Your task to perform on an android device: toggle pop-ups in chrome Image 0: 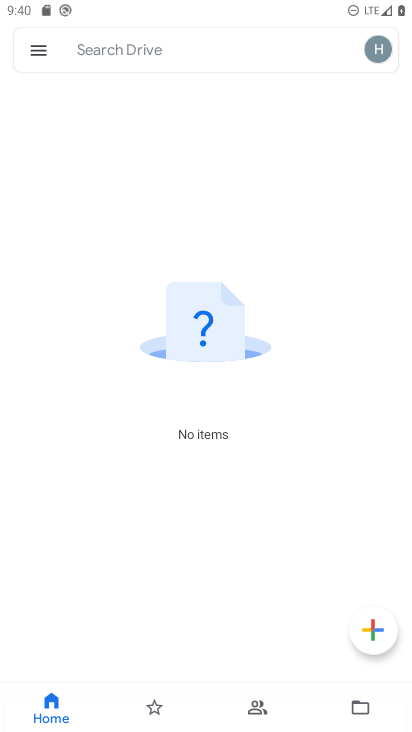
Step 0: press home button
Your task to perform on an android device: toggle pop-ups in chrome Image 1: 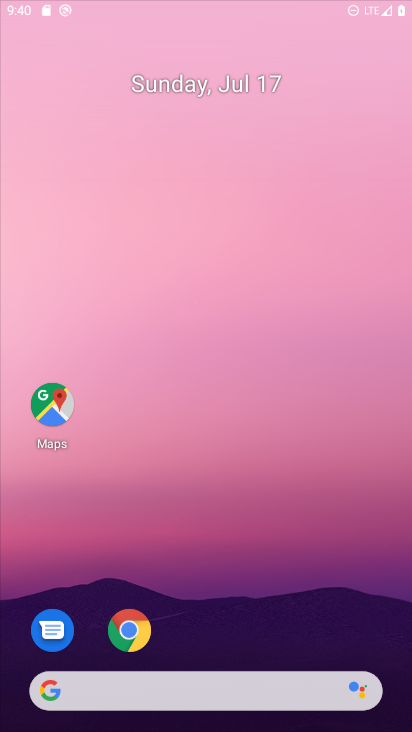
Step 1: drag from (366, 663) to (220, 61)
Your task to perform on an android device: toggle pop-ups in chrome Image 2: 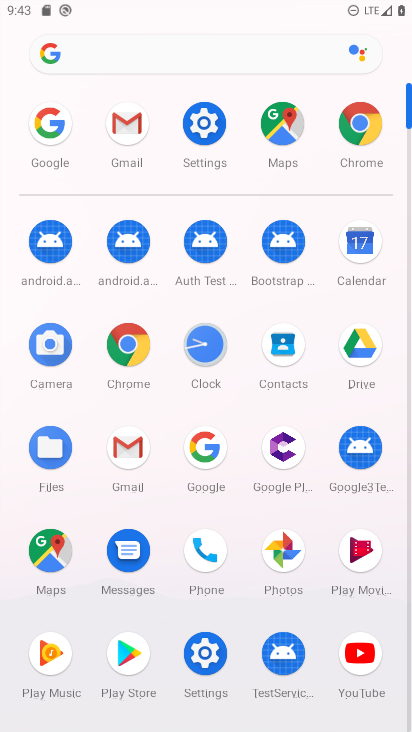
Step 2: click (353, 126)
Your task to perform on an android device: toggle pop-ups in chrome Image 3: 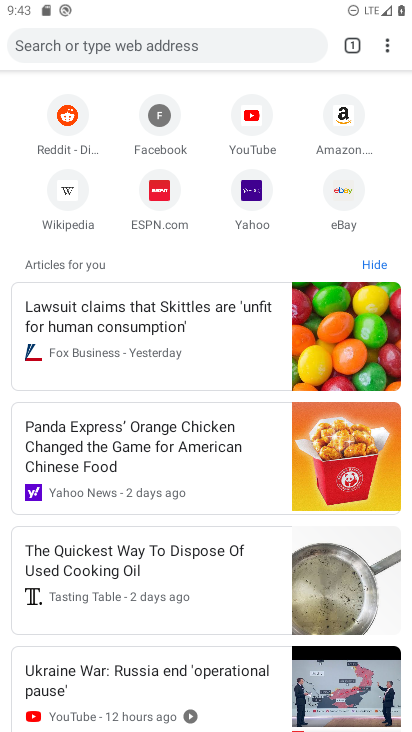
Step 3: click (385, 43)
Your task to perform on an android device: toggle pop-ups in chrome Image 4: 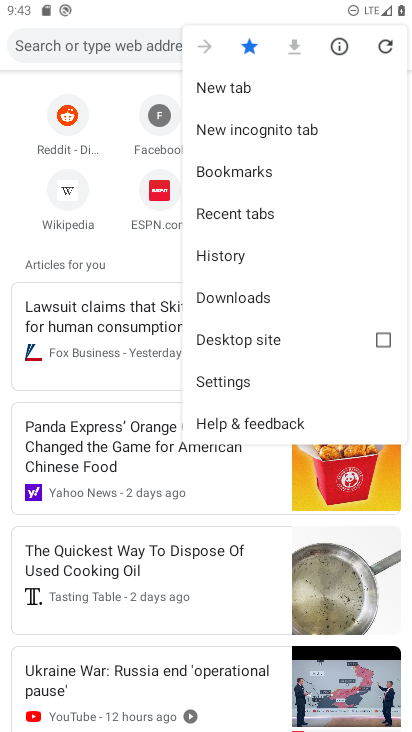
Step 4: click (220, 383)
Your task to perform on an android device: toggle pop-ups in chrome Image 5: 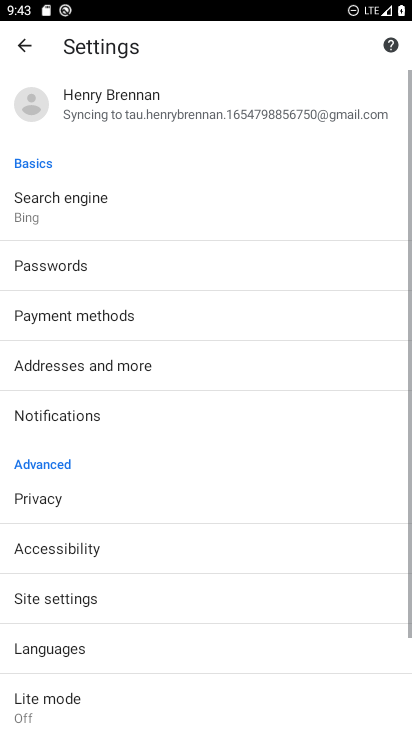
Step 5: click (73, 593)
Your task to perform on an android device: toggle pop-ups in chrome Image 6: 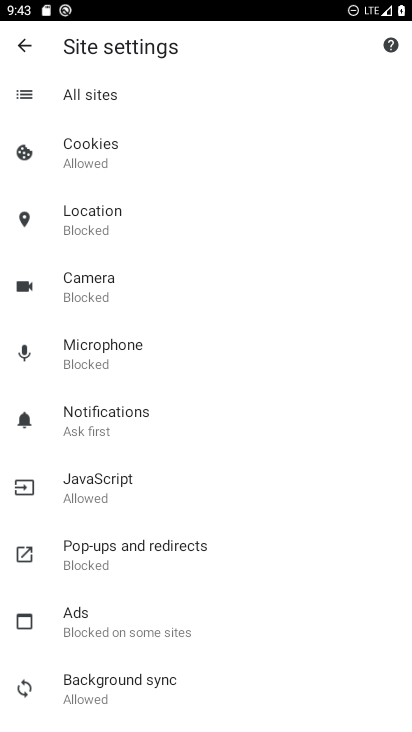
Step 6: click (151, 569)
Your task to perform on an android device: toggle pop-ups in chrome Image 7: 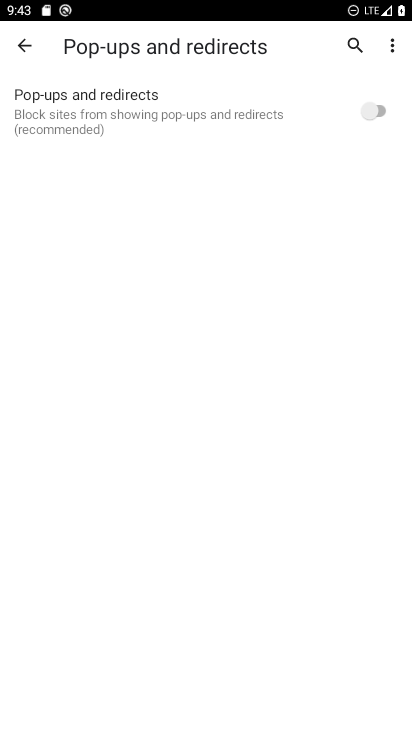
Step 7: click (363, 111)
Your task to perform on an android device: toggle pop-ups in chrome Image 8: 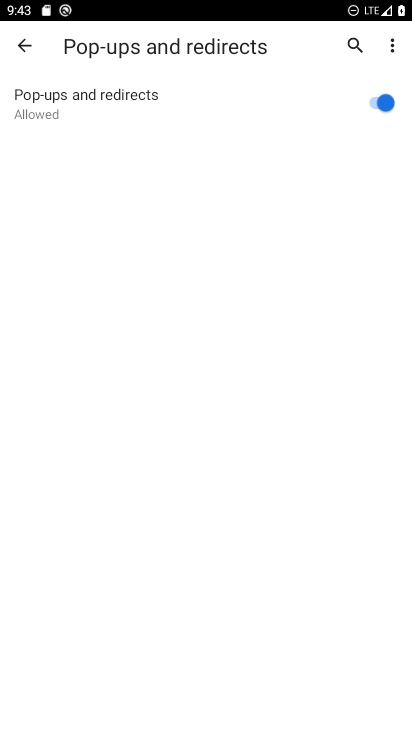
Step 8: task complete